Your task to perform on an android device: check android version Image 0: 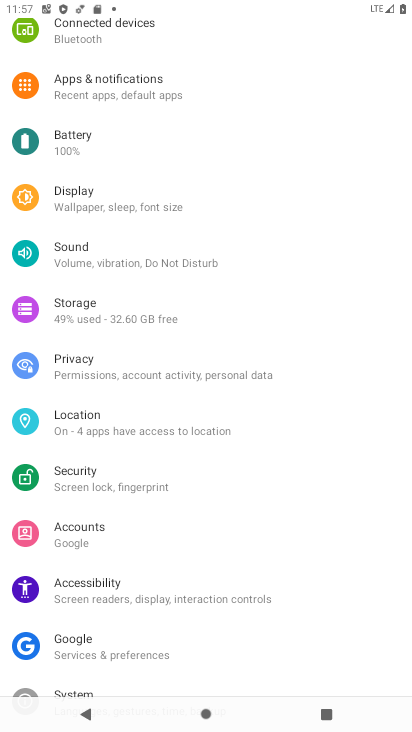
Step 0: press home button
Your task to perform on an android device: check android version Image 1: 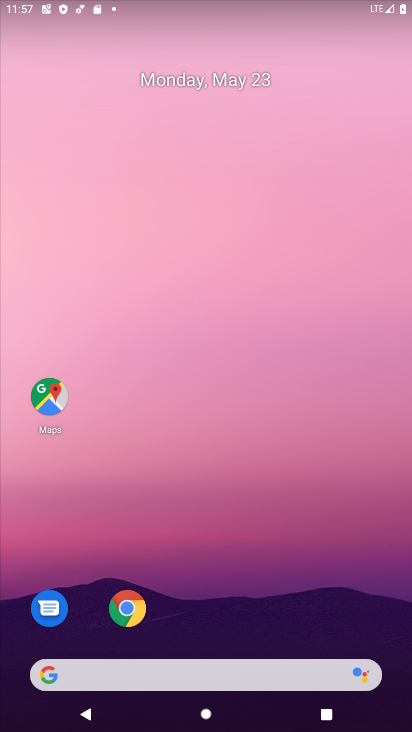
Step 1: drag from (212, 640) to (197, 74)
Your task to perform on an android device: check android version Image 2: 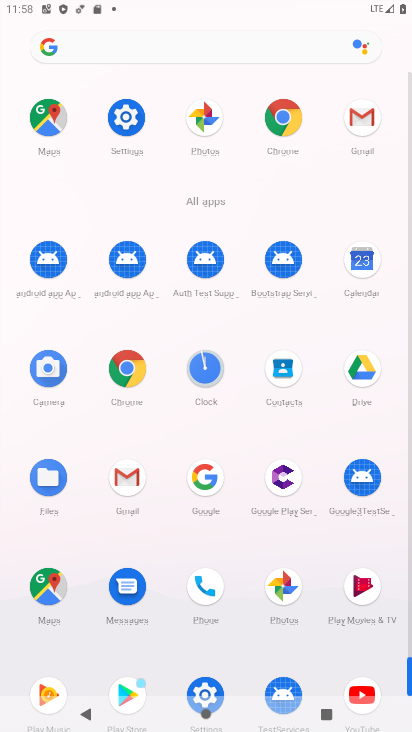
Step 2: click (123, 108)
Your task to perform on an android device: check android version Image 3: 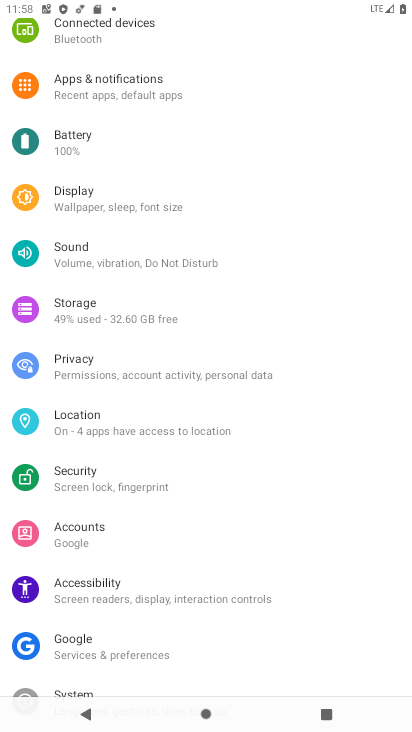
Step 3: drag from (143, 121) to (127, 535)
Your task to perform on an android device: check android version Image 4: 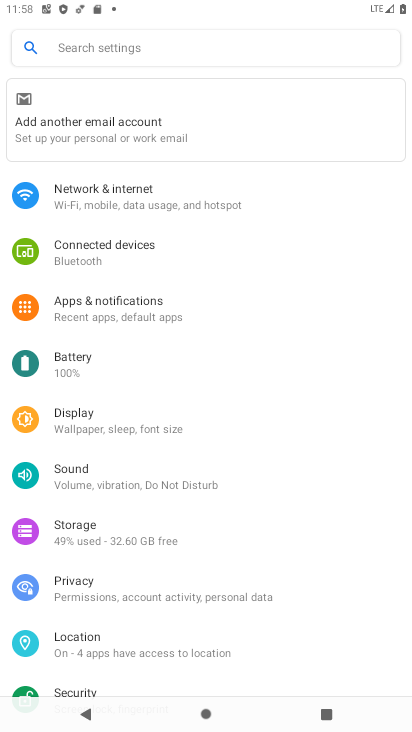
Step 4: drag from (146, 666) to (174, 70)
Your task to perform on an android device: check android version Image 5: 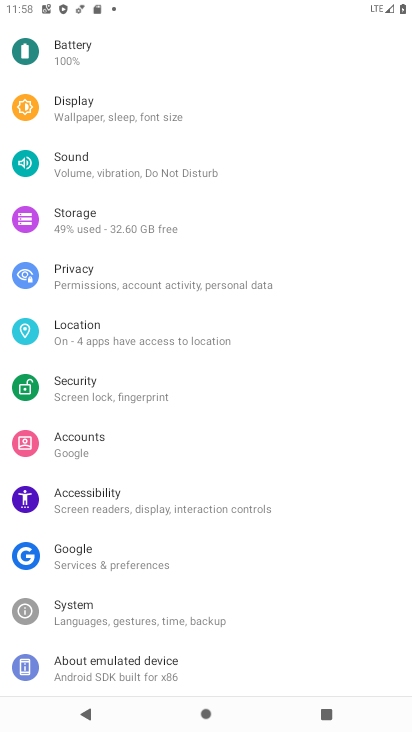
Step 5: click (188, 668)
Your task to perform on an android device: check android version Image 6: 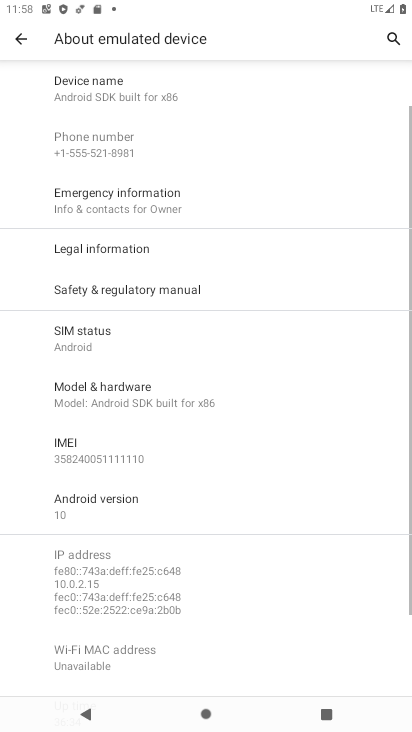
Step 6: click (83, 511)
Your task to perform on an android device: check android version Image 7: 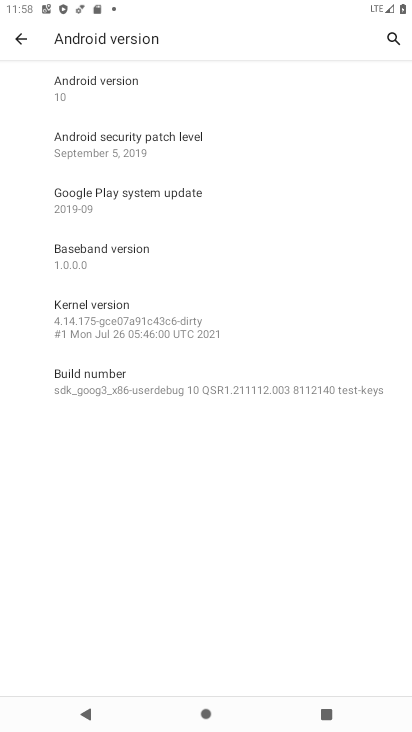
Step 7: task complete